Your task to perform on an android device: Open Yahoo.com Image 0: 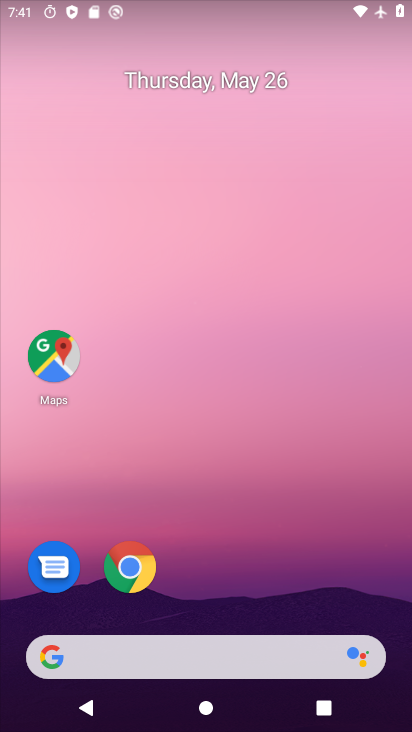
Step 0: press home button
Your task to perform on an android device: Open Yahoo.com Image 1: 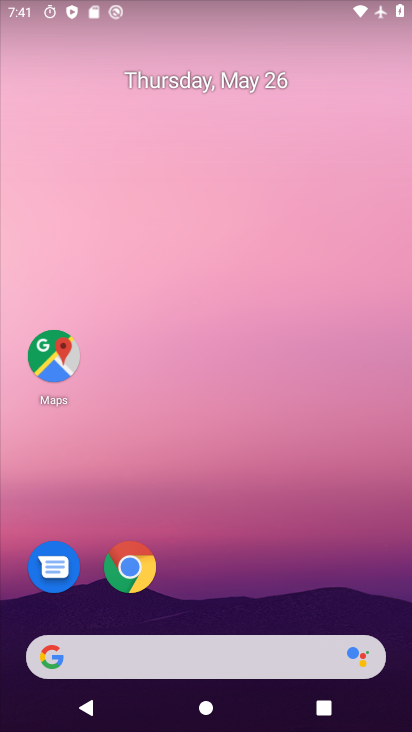
Step 1: click (137, 562)
Your task to perform on an android device: Open Yahoo.com Image 2: 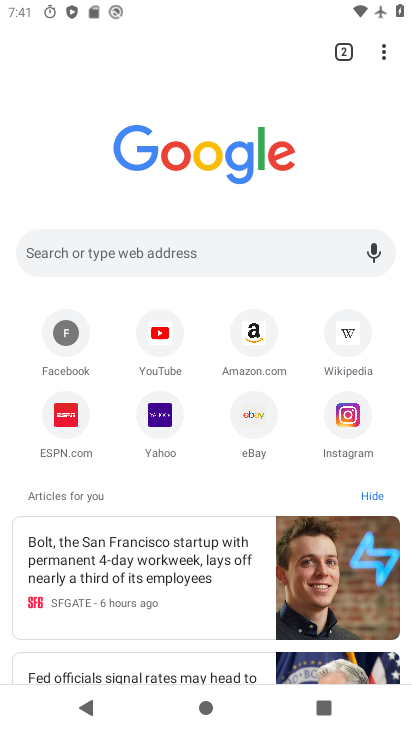
Step 2: click (160, 416)
Your task to perform on an android device: Open Yahoo.com Image 3: 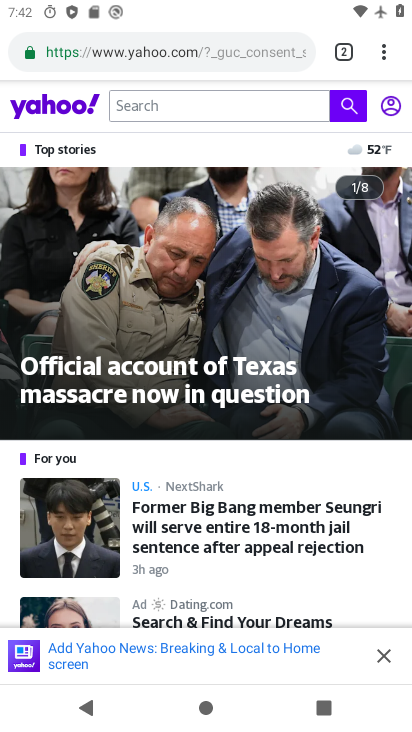
Step 3: task complete